Your task to perform on an android device: delete the emails in spam in the gmail app Image 0: 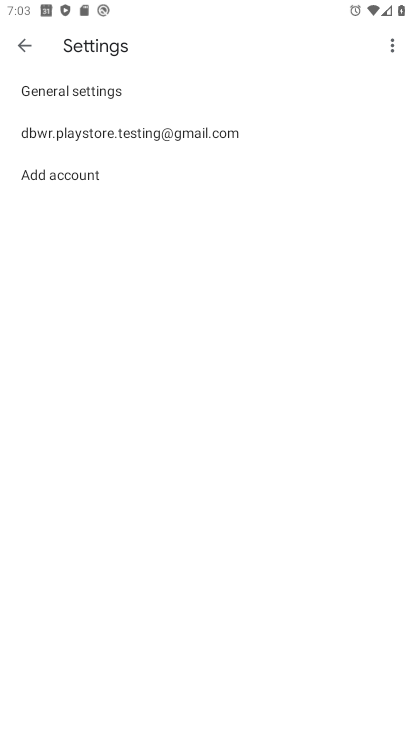
Step 0: press home button
Your task to perform on an android device: delete the emails in spam in the gmail app Image 1: 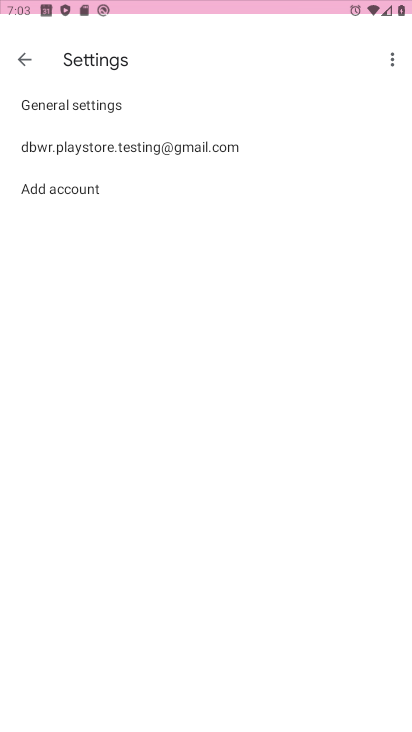
Step 1: drag from (366, 509) to (166, 4)
Your task to perform on an android device: delete the emails in spam in the gmail app Image 2: 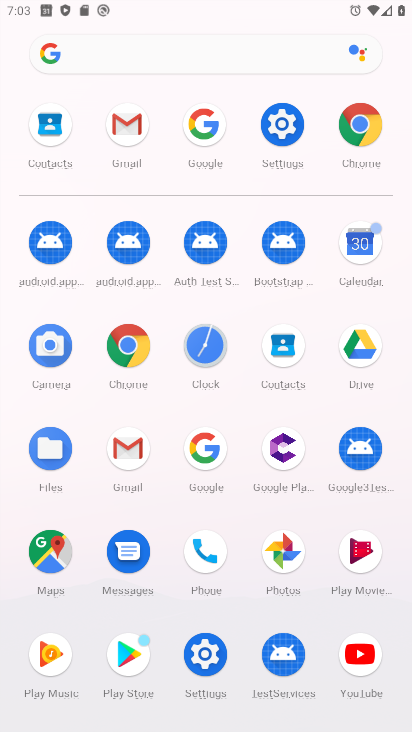
Step 2: click (123, 146)
Your task to perform on an android device: delete the emails in spam in the gmail app Image 3: 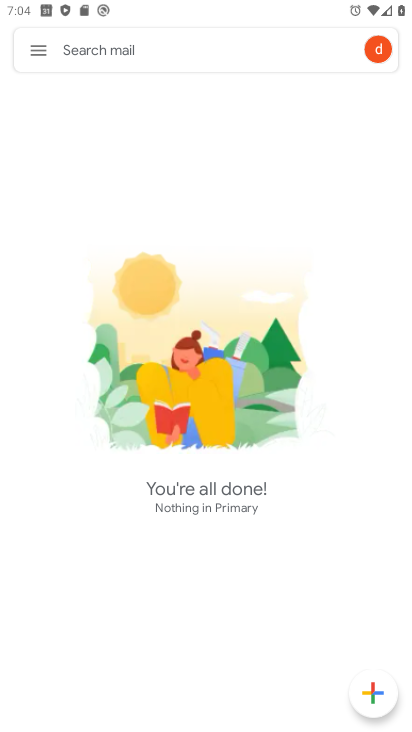
Step 3: click (41, 51)
Your task to perform on an android device: delete the emails in spam in the gmail app Image 4: 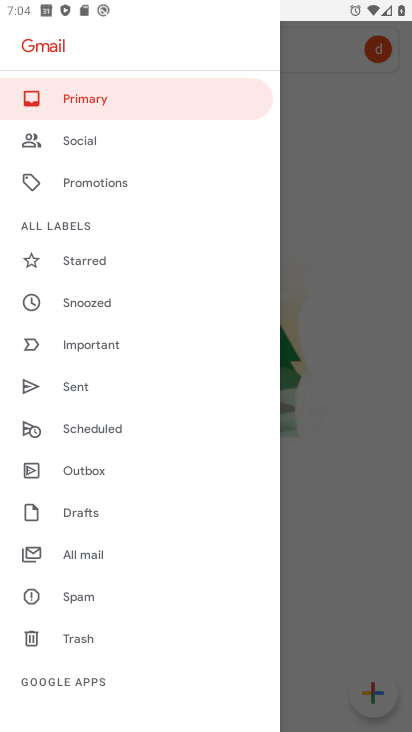
Step 4: click (112, 584)
Your task to perform on an android device: delete the emails in spam in the gmail app Image 5: 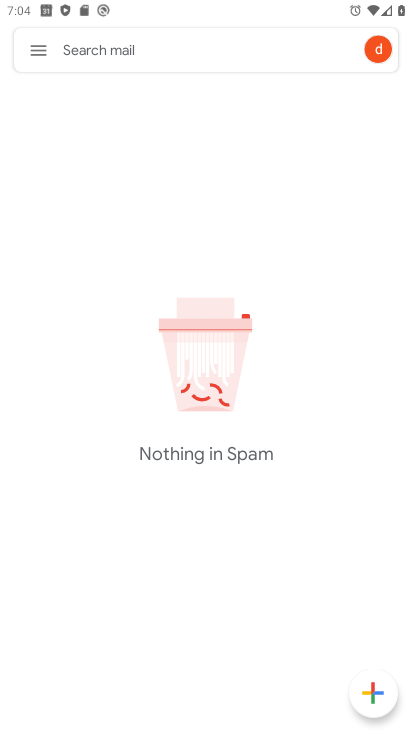
Step 5: task complete